Your task to perform on an android device: delete the emails in spam in the gmail app Image 0: 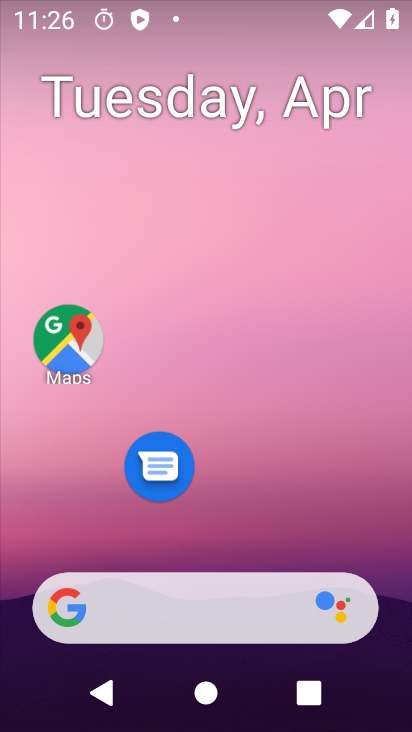
Step 0: drag from (263, 554) to (206, 85)
Your task to perform on an android device: delete the emails in spam in the gmail app Image 1: 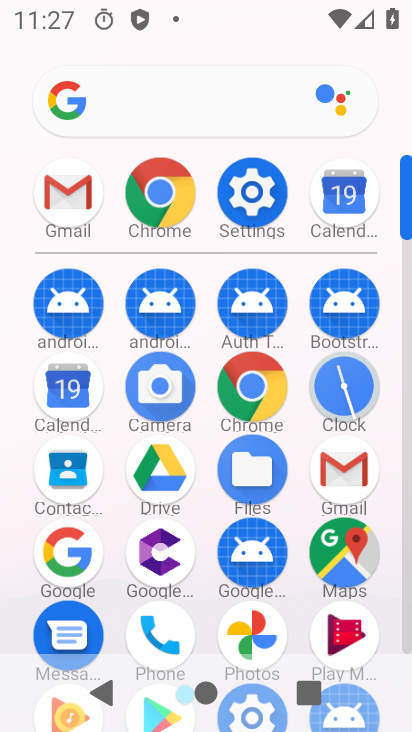
Step 1: click (78, 191)
Your task to perform on an android device: delete the emails in spam in the gmail app Image 2: 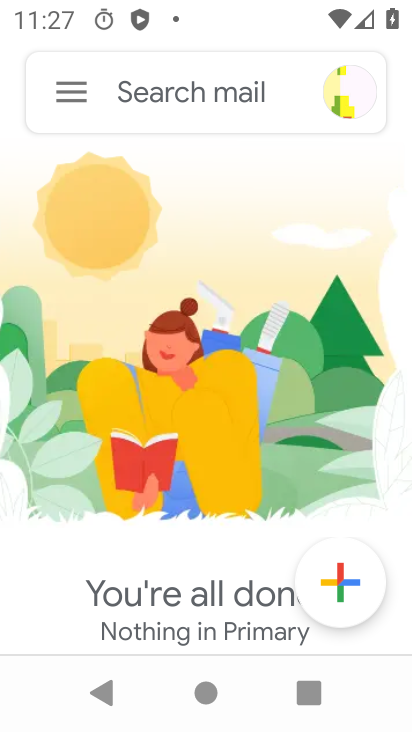
Step 2: task complete